Your task to perform on an android device: Do I have any events this weekend? Image 0: 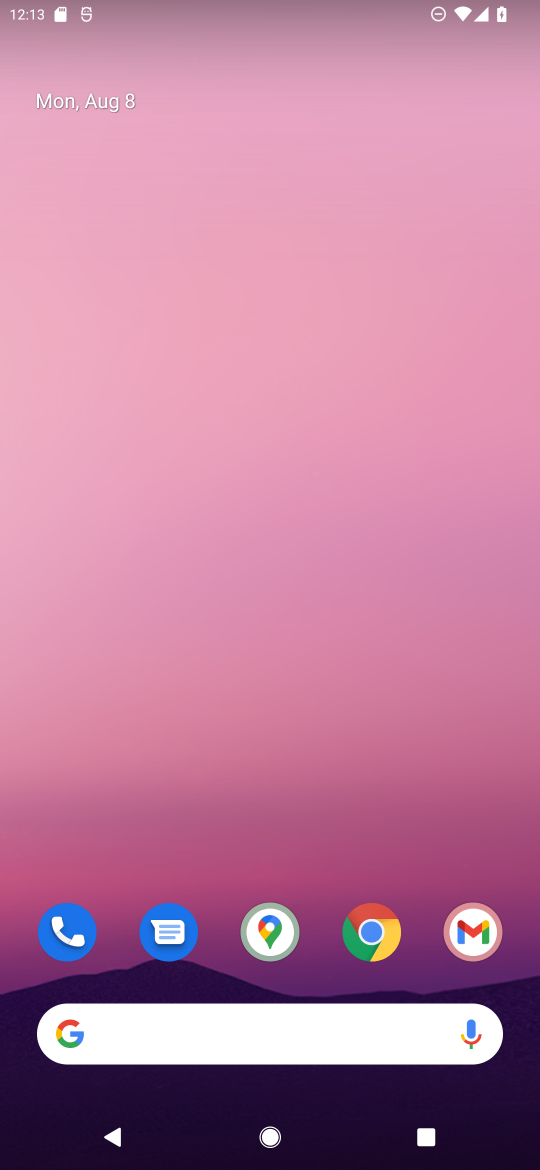
Step 0: click (63, 116)
Your task to perform on an android device: Do I have any events this weekend? Image 1: 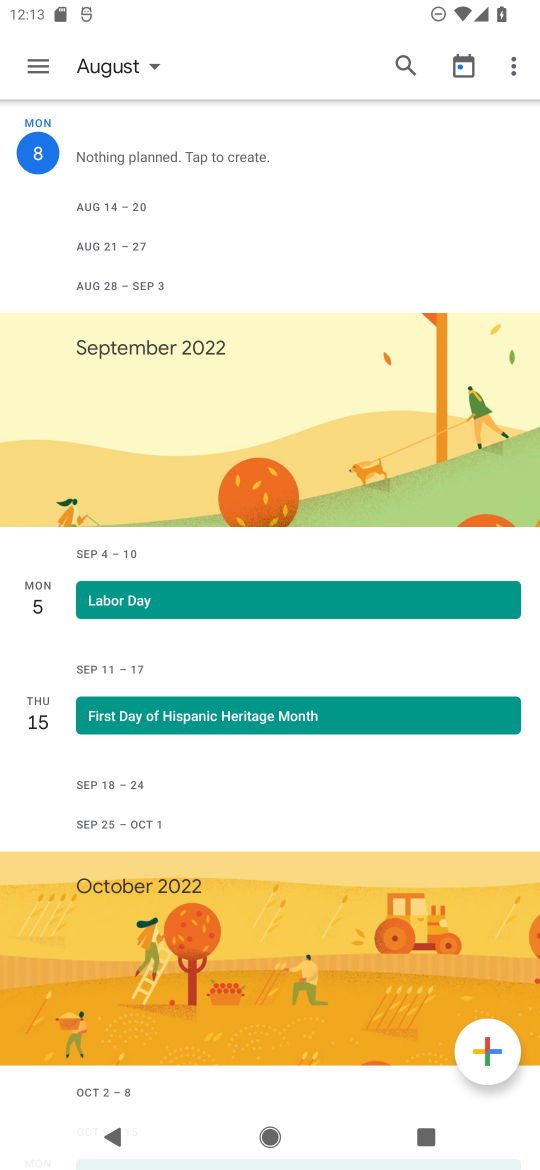
Step 1: click (97, 83)
Your task to perform on an android device: Do I have any events this weekend? Image 2: 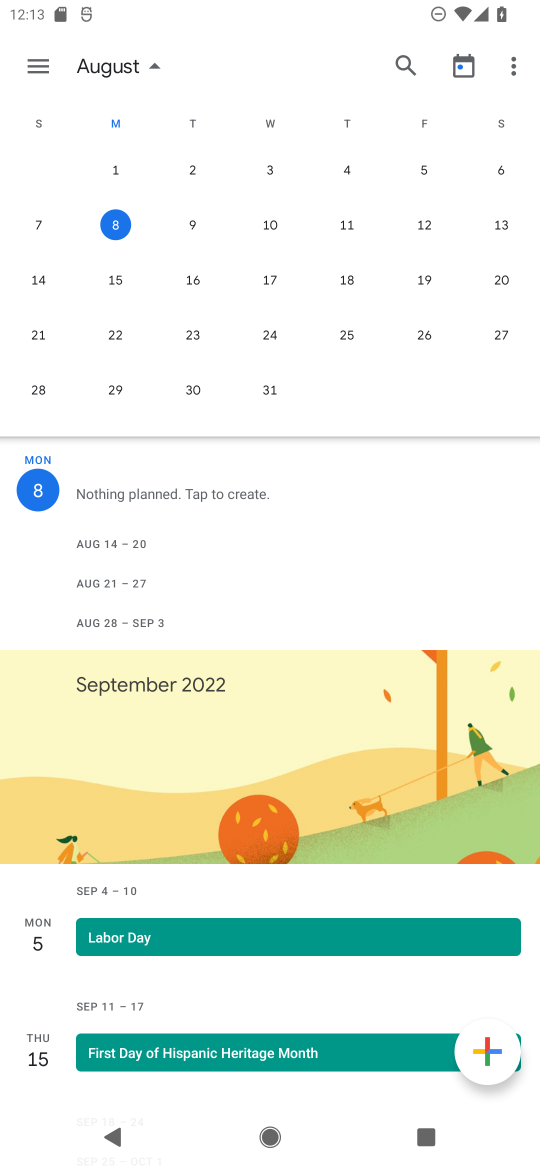
Step 2: click (520, 231)
Your task to perform on an android device: Do I have any events this weekend? Image 3: 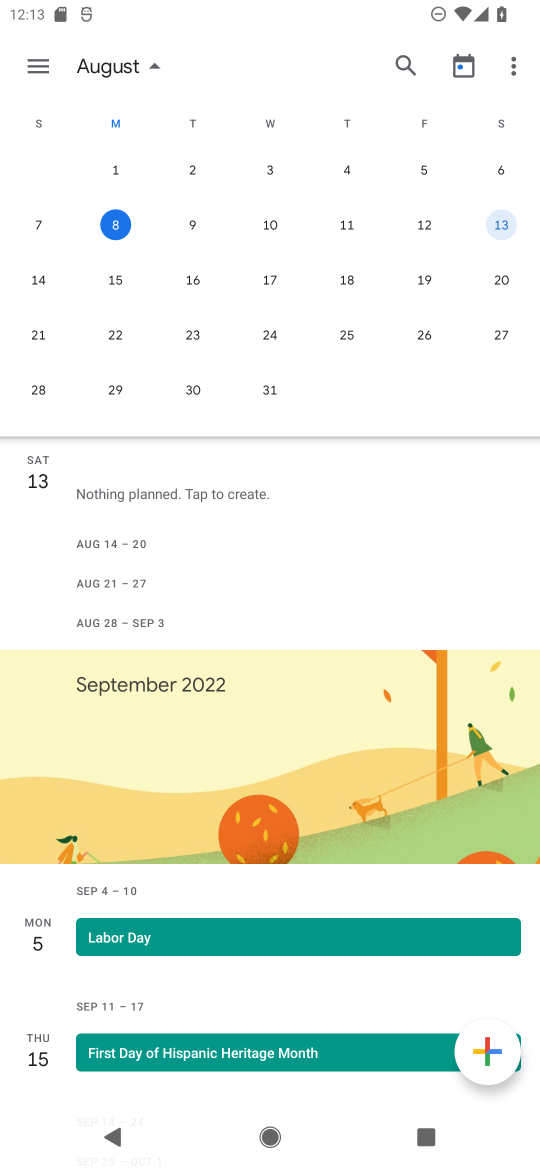
Step 3: task complete